Your task to perform on an android device: uninstall "DoorDash - Food Delivery" Image 0: 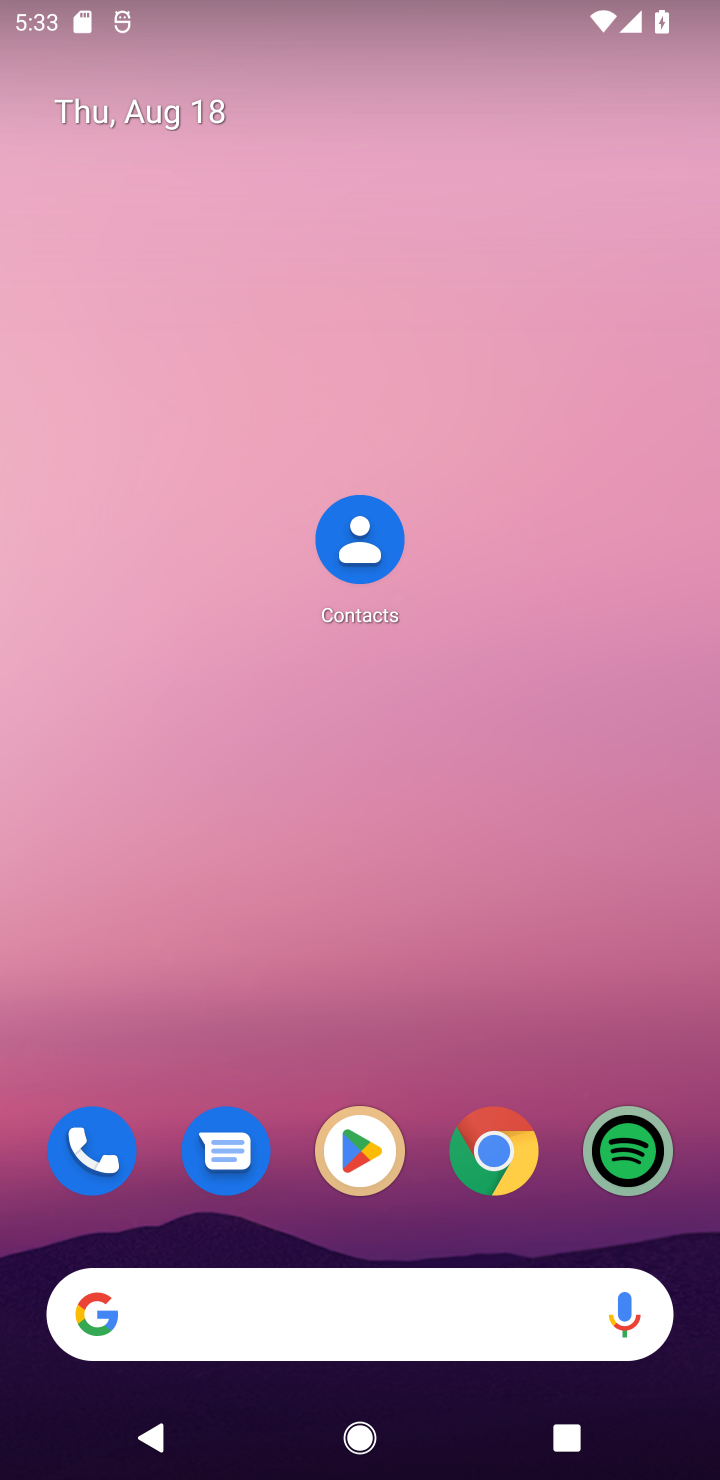
Step 0: drag from (576, 1200) to (496, 463)
Your task to perform on an android device: uninstall "DoorDash - Food Delivery" Image 1: 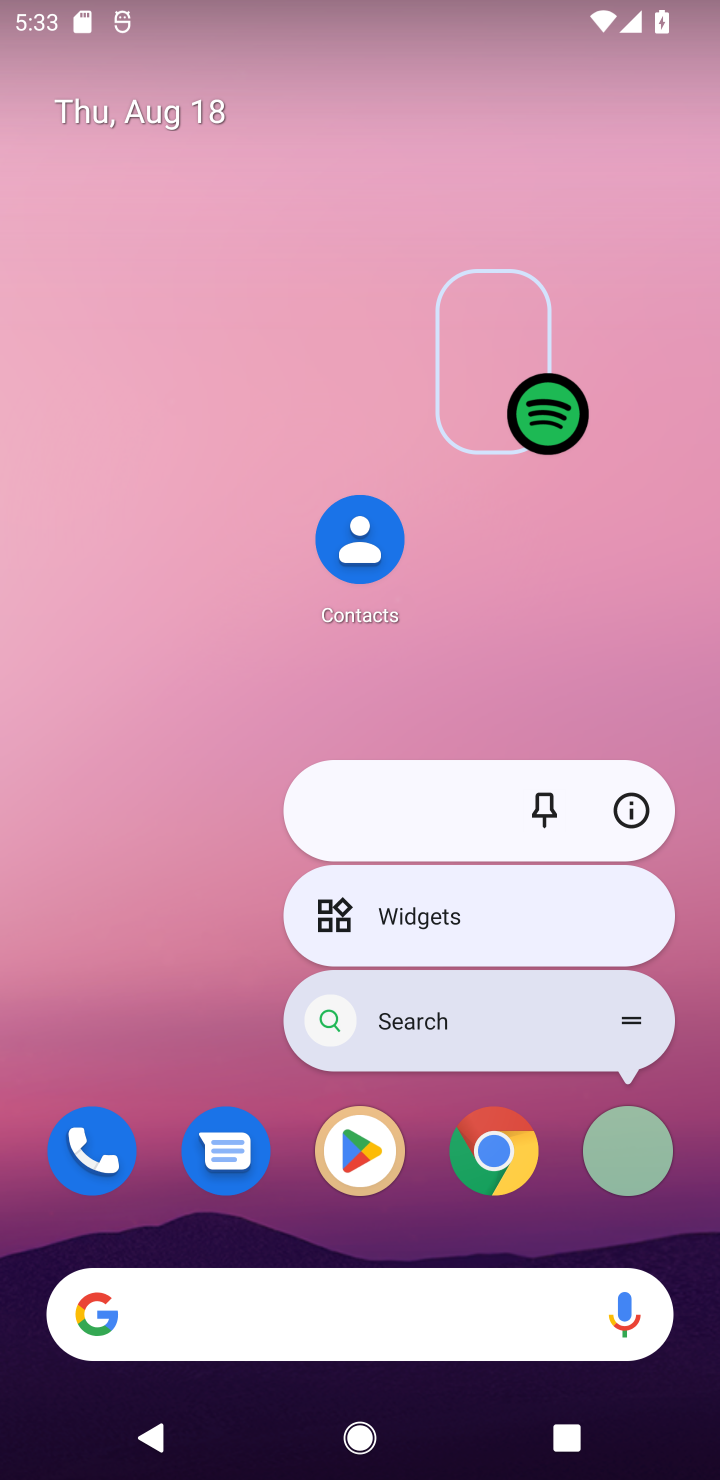
Step 1: click (496, 463)
Your task to perform on an android device: uninstall "DoorDash - Food Delivery" Image 2: 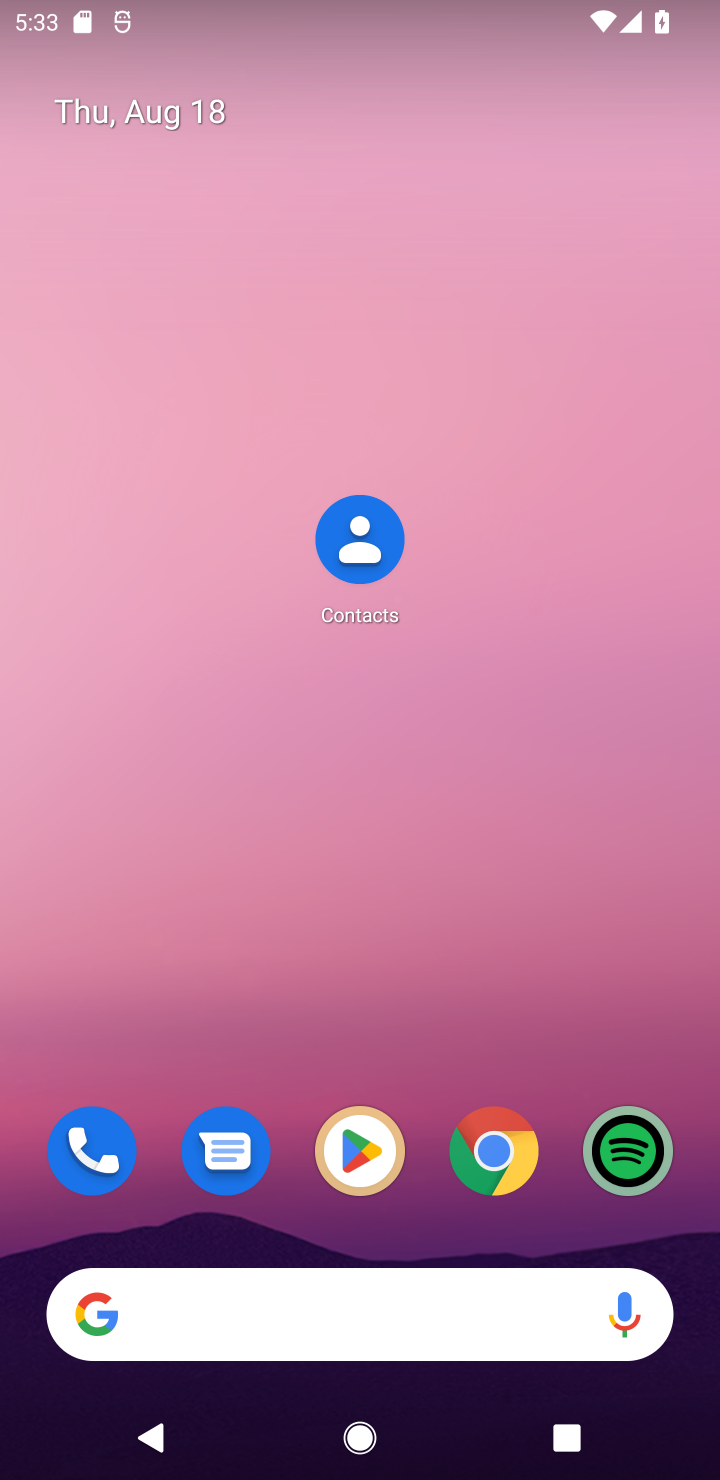
Step 2: click (150, 763)
Your task to perform on an android device: uninstall "DoorDash - Food Delivery" Image 3: 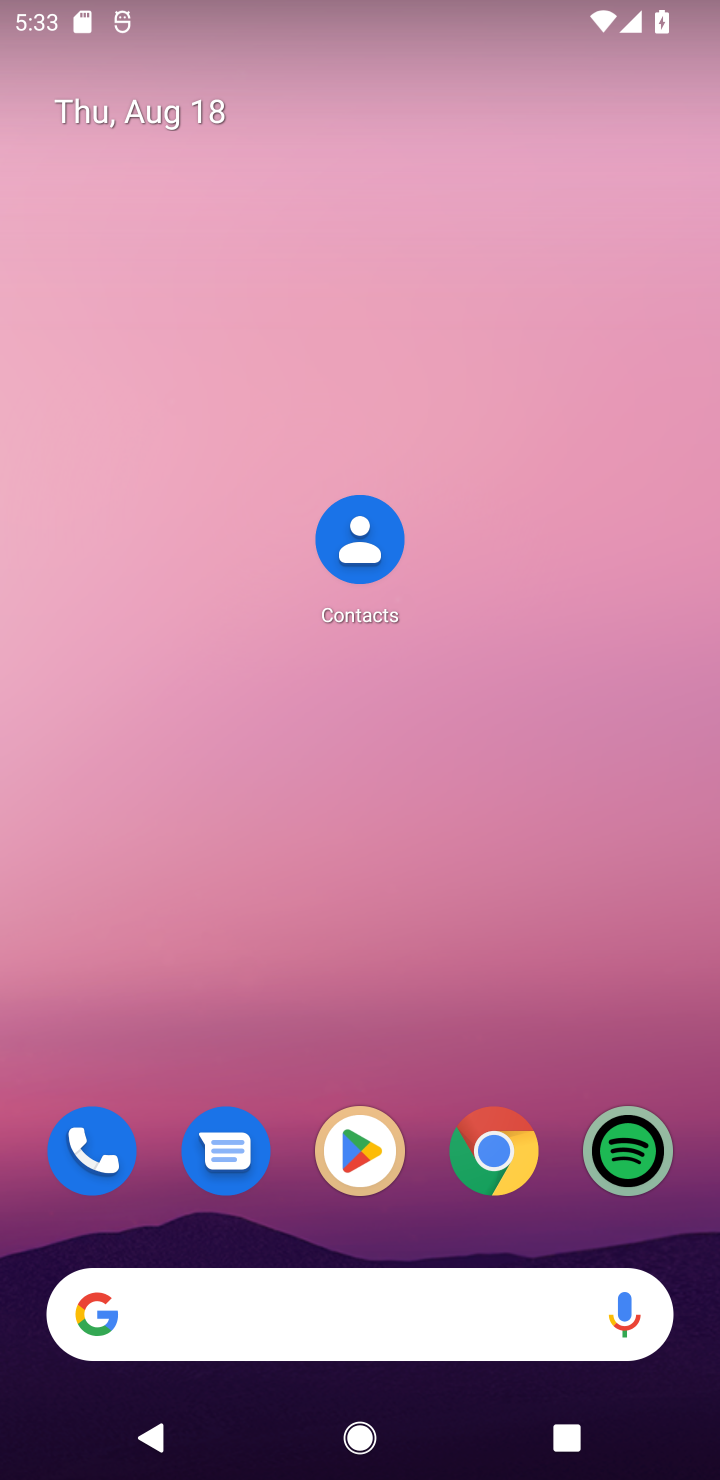
Step 3: task complete